Your task to perform on an android device: empty trash in google photos Image 0: 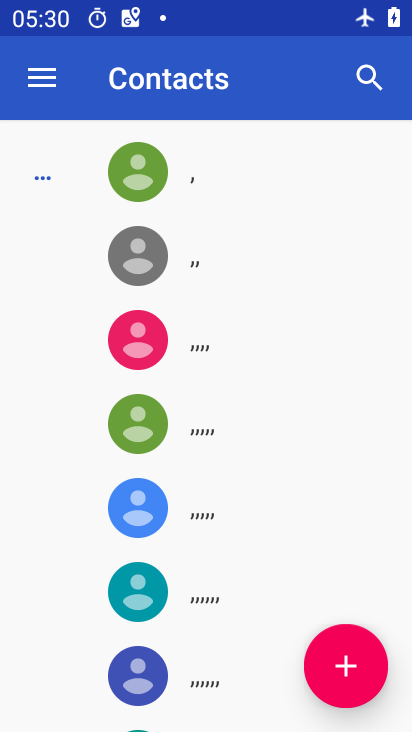
Step 0: press home button
Your task to perform on an android device: empty trash in google photos Image 1: 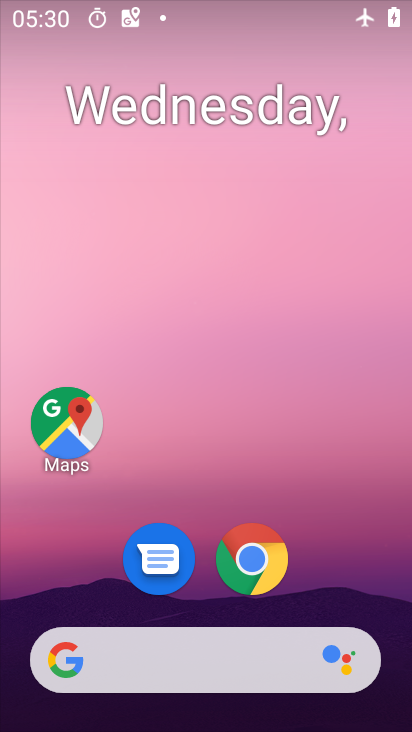
Step 1: drag from (346, 579) to (136, 0)
Your task to perform on an android device: empty trash in google photos Image 2: 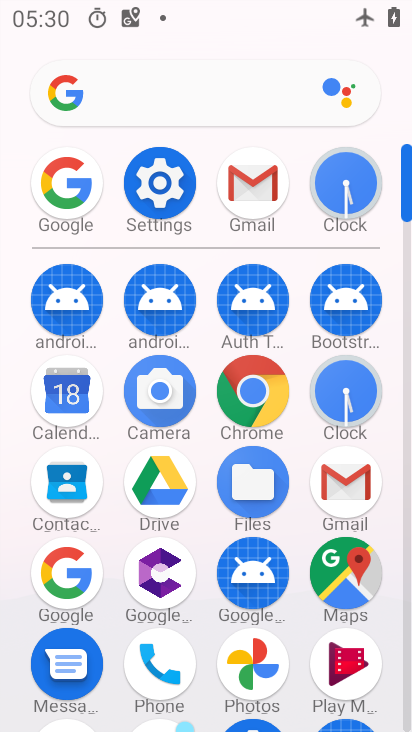
Step 2: click (250, 664)
Your task to perform on an android device: empty trash in google photos Image 3: 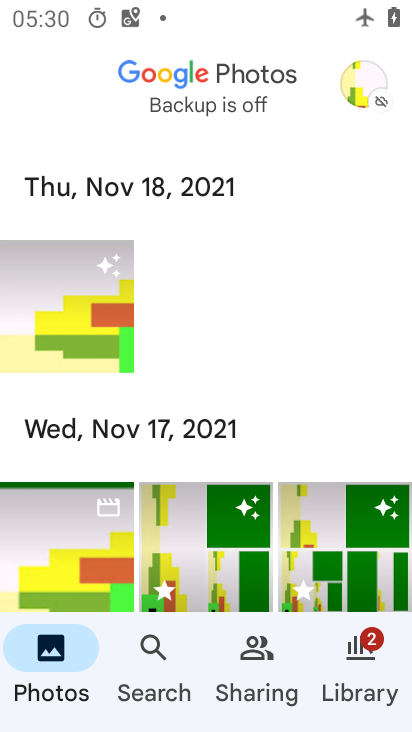
Step 3: click (363, 662)
Your task to perform on an android device: empty trash in google photos Image 4: 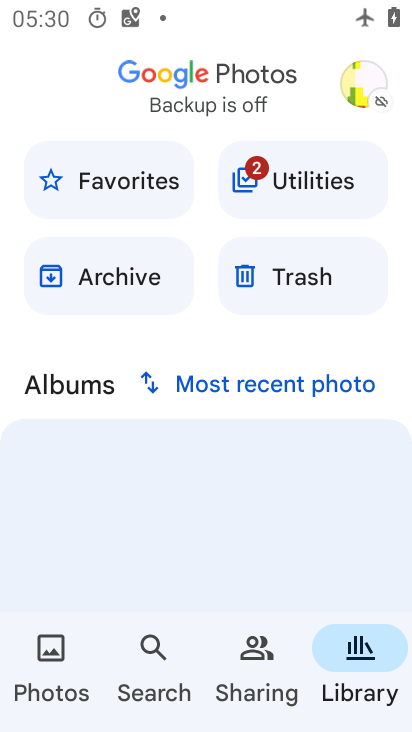
Step 4: click (310, 267)
Your task to perform on an android device: empty trash in google photos Image 5: 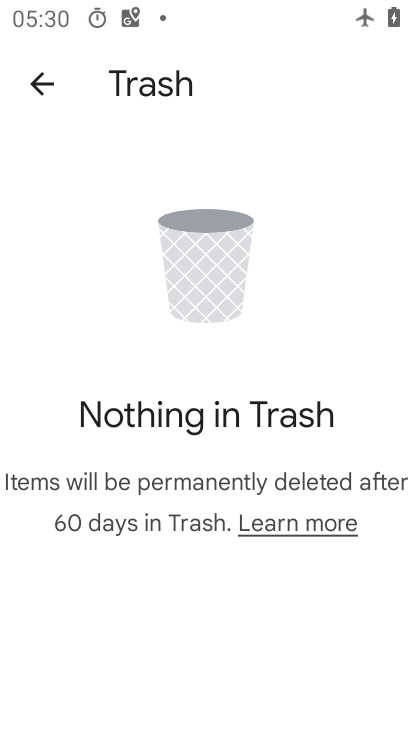
Step 5: task complete